Your task to perform on an android device: add a contact in the contacts app Image 0: 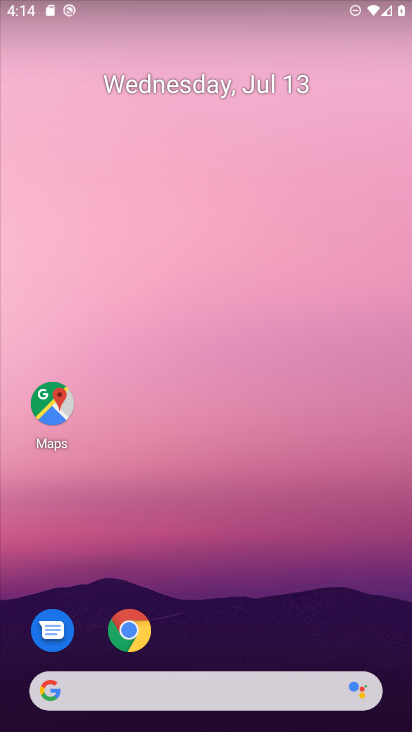
Step 0: drag from (254, 614) to (232, 10)
Your task to perform on an android device: add a contact in the contacts app Image 1: 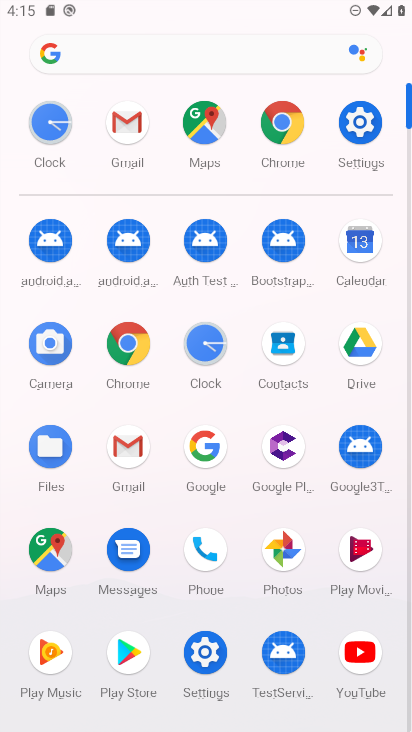
Step 1: click (180, 312)
Your task to perform on an android device: add a contact in the contacts app Image 2: 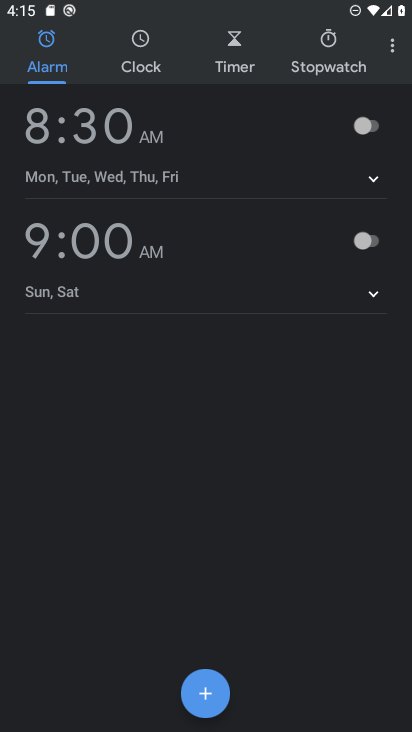
Step 2: press home button
Your task to perform on an android device: add a contact in the contacts app Image 3: 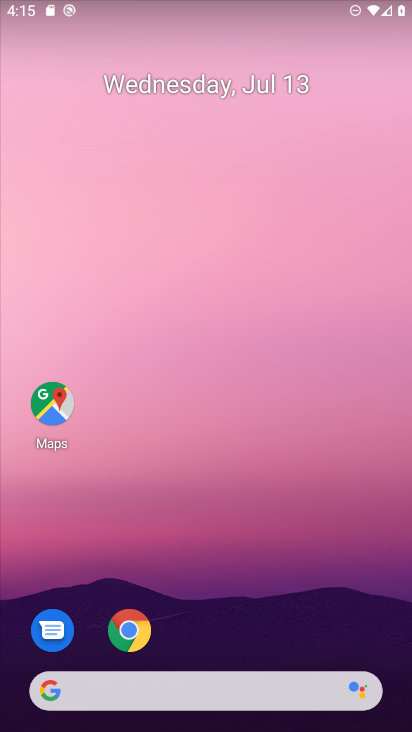
Step 3: drag from (199, 461) to (228, 170)
Your task to perform on an android device: add a contact in the contacts app Image 4: 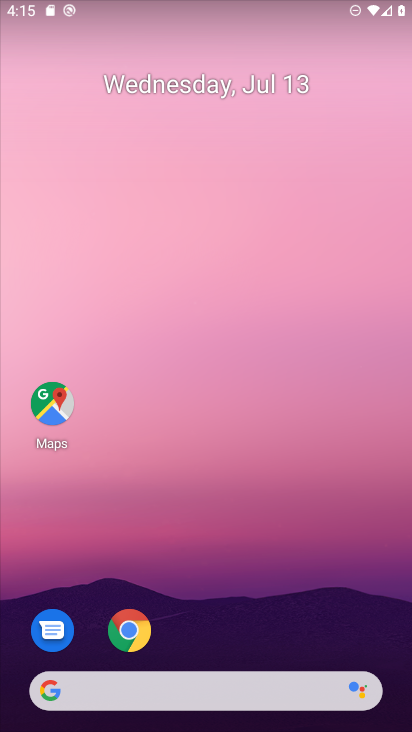
Step 4: drag from (191, 347) to (262, 93)
Your task to perform on an android device: add a contact in the contacts app Image 5: 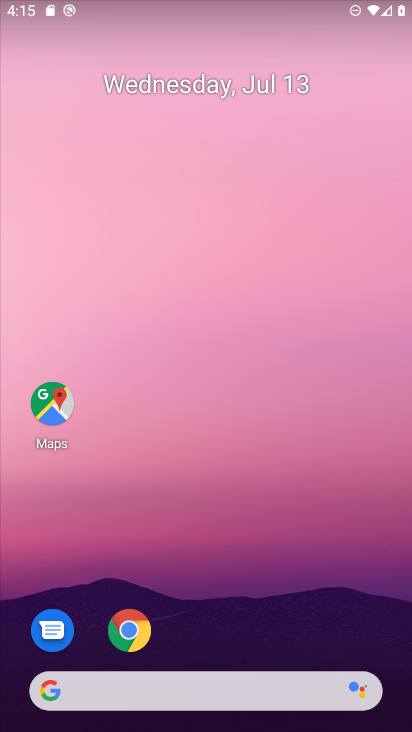
Step 5: drag from (197, 610) to (241, 92)
Your task to perform on an android device: add a contact in the contacts app Image 6: 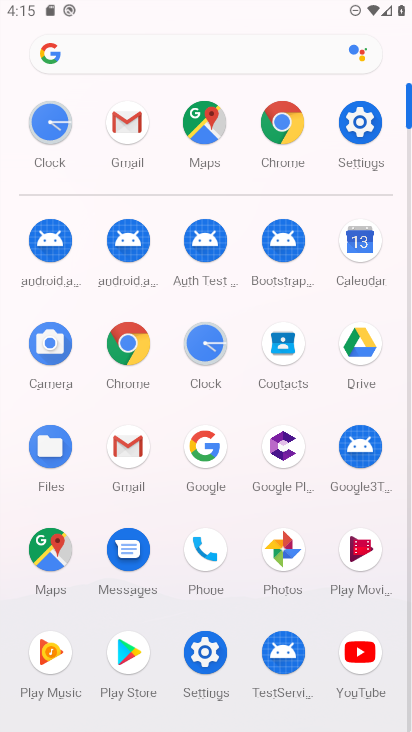
Step 6: click (283, 378)
Your task to perform on an android device: add a contact in the contacts app Image 7: 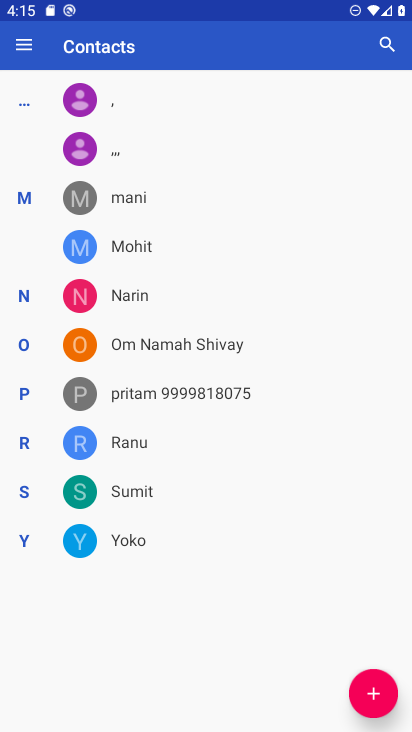
Step 7: click (373, 696)
Your task to perform on an android device: add a contact in the contacts app Image 8: 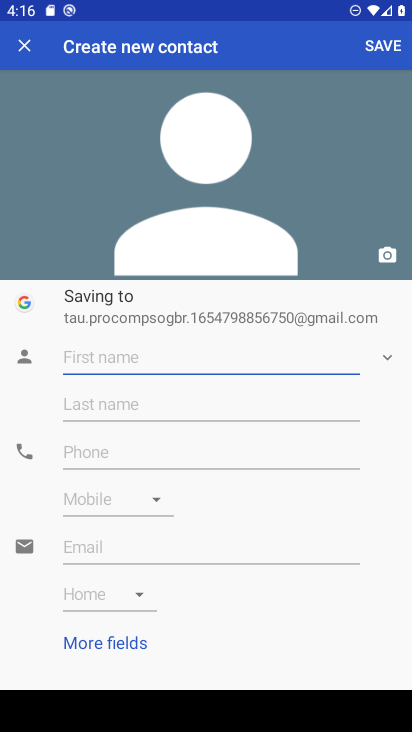
Step 8: type "Raman"
Your task to perform on an android device: add a contact in the contacts app Image 9: 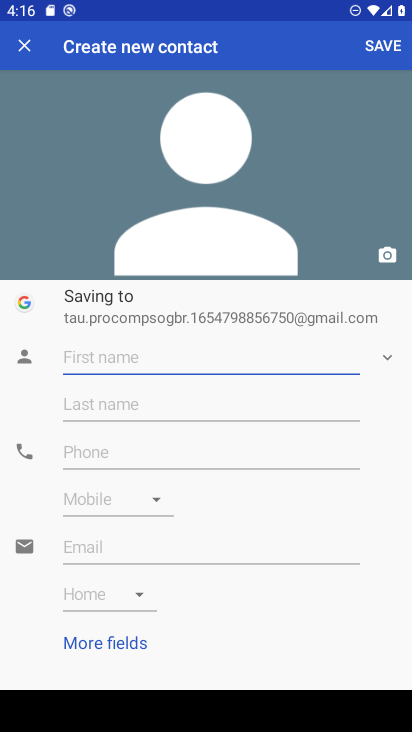
Step 9: click (200, 461)
Your task to perform on an android device: add a contact in the contacts app Image 10: 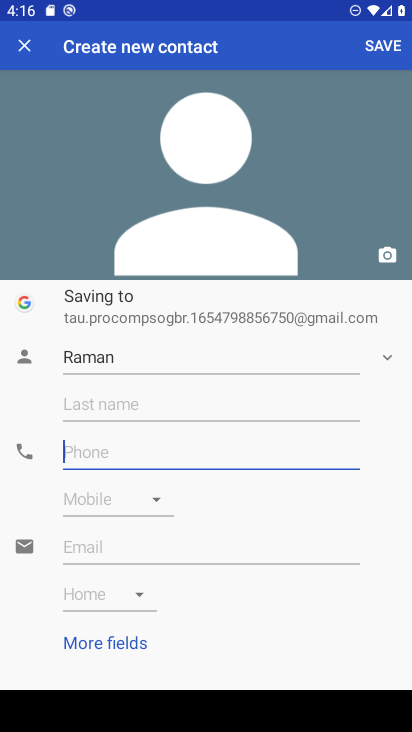
Step 10: type "7567765789"
Your task to perform on an android device: add a contact in the contacts app Image 11: 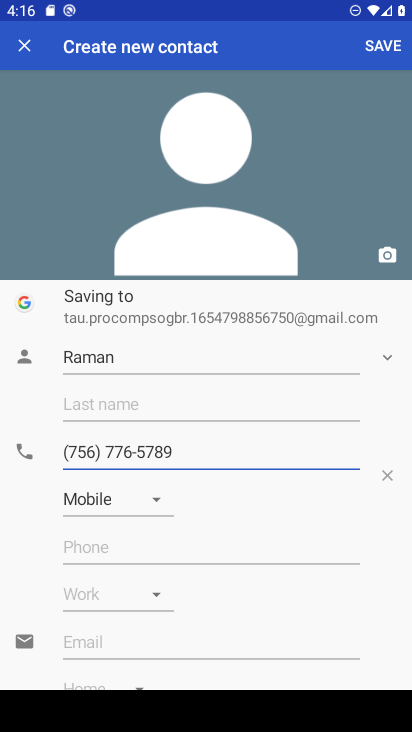
Step 11: click (388, 48)
Your task to perform on an android device: add a contact in the contacts app Image 12: 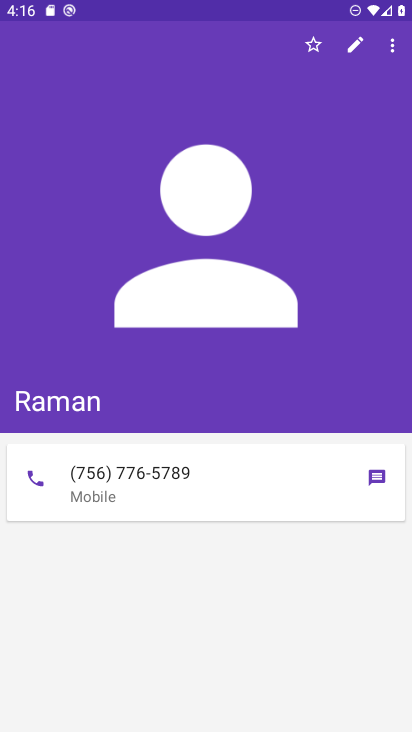
Step 12: task complete